Your task to perform on an android device: Go to eBay Image 0: 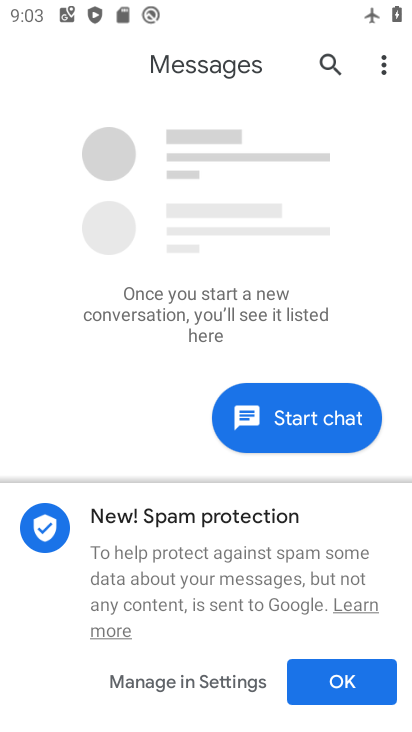
Step 0: press home button
Your task to perform on an android device: Go to eBay Image 1: 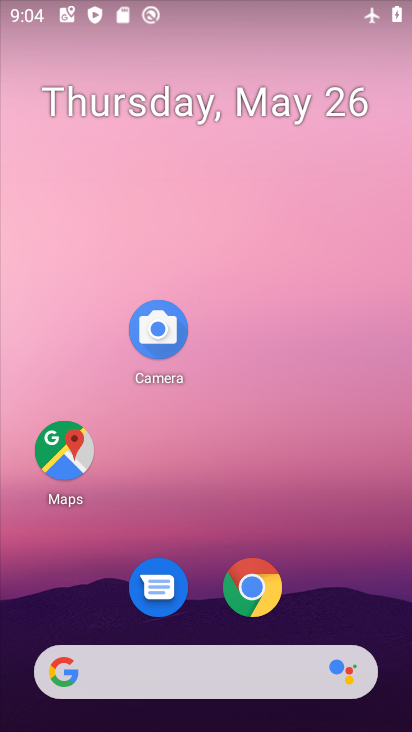
Step 1: click (265, 595)
Your task to perform on an android device: Go to eBay Image 2: 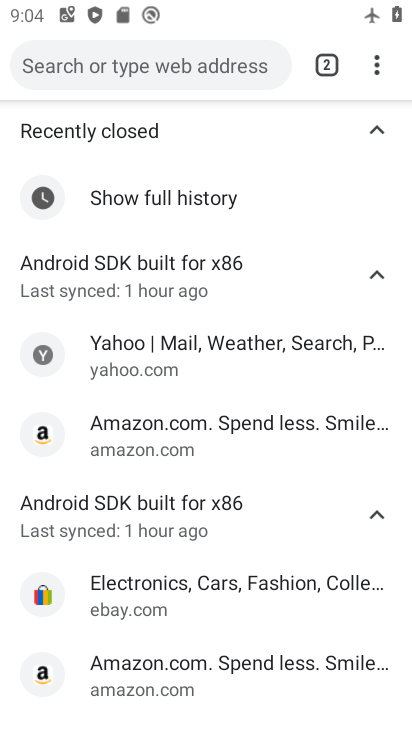
Step 2: click (315, 69)
Your task to perform on an android device: Go to eBay Image 3: 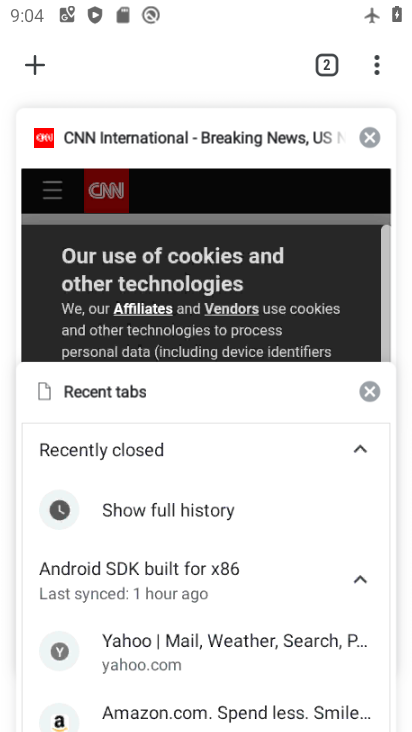
Step 3: click (29, 63)
Your task to perform on an android device: Go to eBay Image 4: 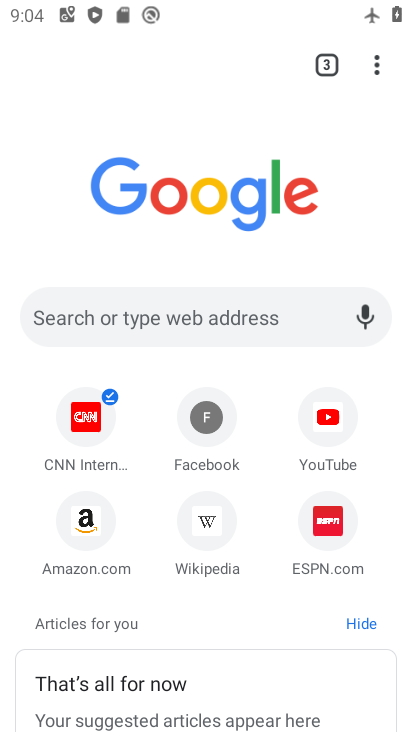
Step 4: click (205, 302)
Your task to perform on an android device: Go to eBay Image 5: 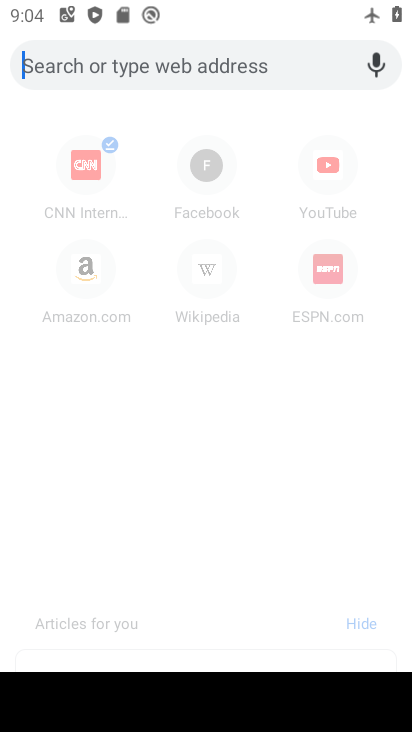
Step 5: type "eBay"
Your task to perform on an android device: Go to eBay Image 6: 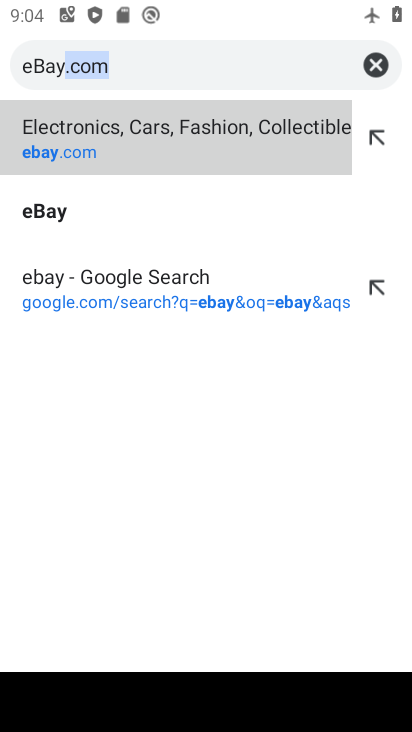
Step 6: drag from (89, 137) to (118, 217)
Your task to perform on an android device: Go to eBay Image 7: 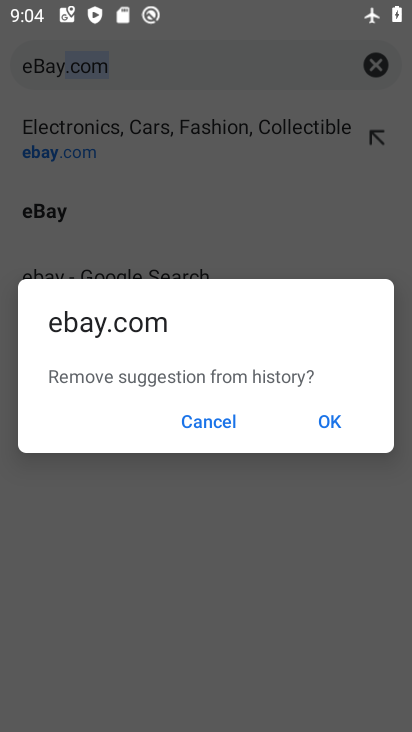
Step 7: click (236, 421)
Your task to perform on an android device: Go to eBay Image 8: 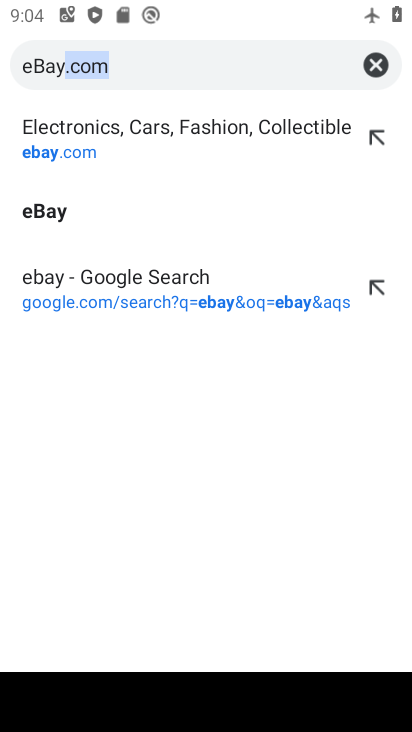
Step 8: click (179, 152)
Your task to perform on an android device: Go to eBay Image 9: 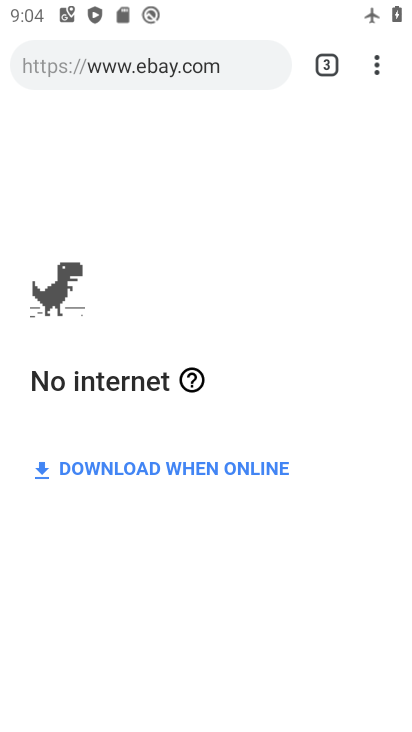
Step 9: task complete